Your task to perform on an android device: set the stopwatch Image 0: 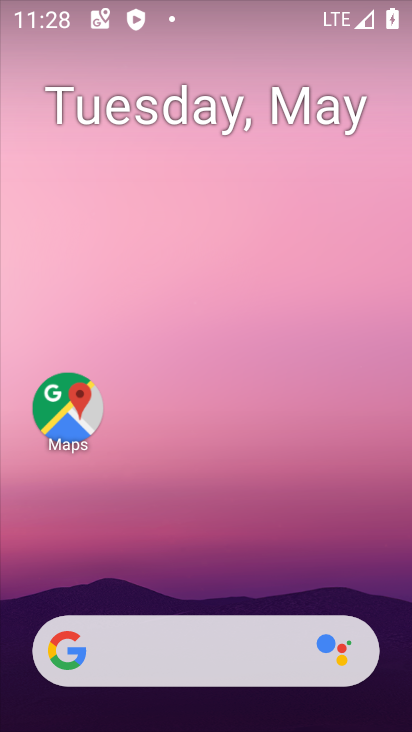
Step 0: drag from (158, 624) to (231, 187)
Your task to perform on an android device: set the stopwatch Image 1: 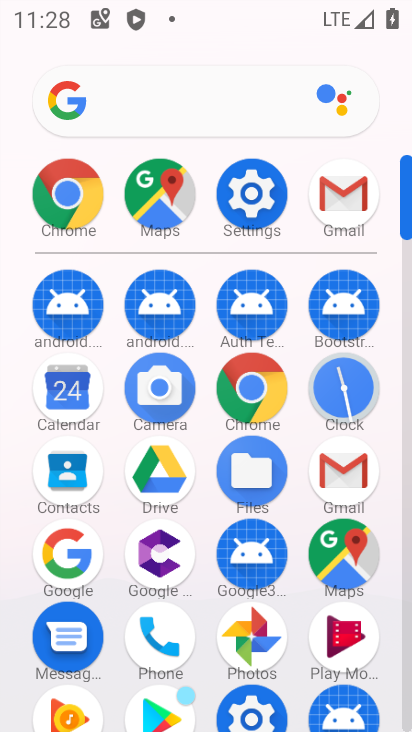
Step 1: click (347, 371)
Your task to perform on an android device: set the stopwatch Image 2: 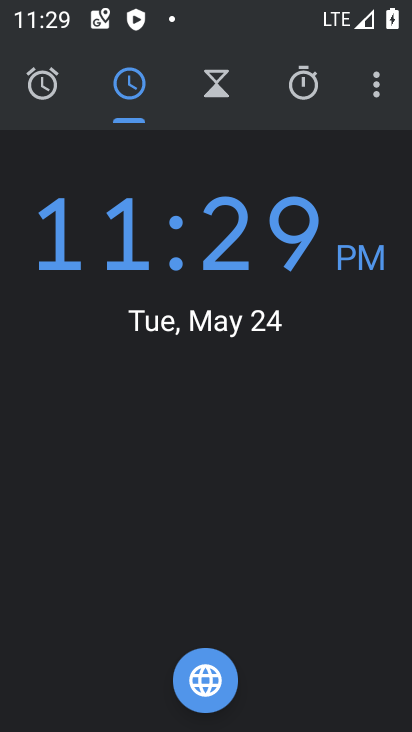
Step 2: click (288, 95)
Your task to perform on an android device: set the stopwatch Image 3: 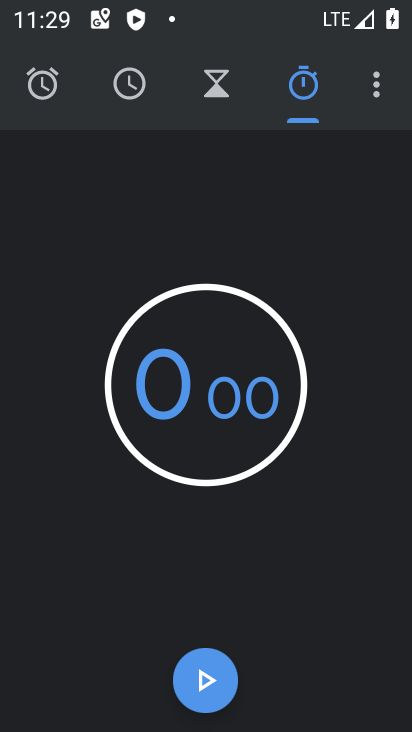
Step 3: click (217, 670)
Your task to perform on an android device: set the stopwatch Image 4: 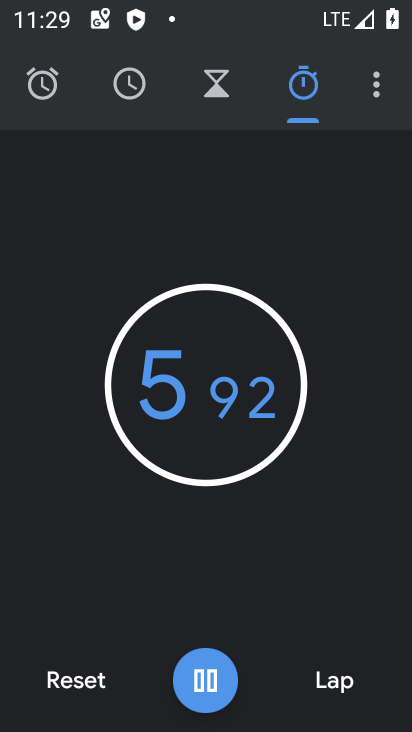
Step 4: click (217, 670)
Your task to perform on an android device: set the stopwatch Image 5: 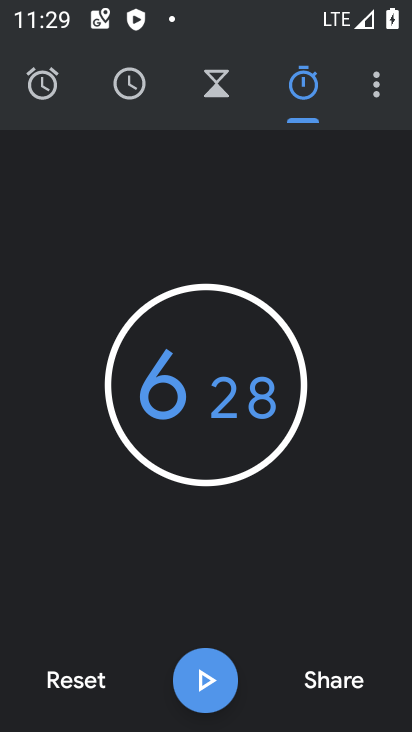
Step 5: task complete